Your task to perform on an android device: open app "Google Play Music" Image 0: 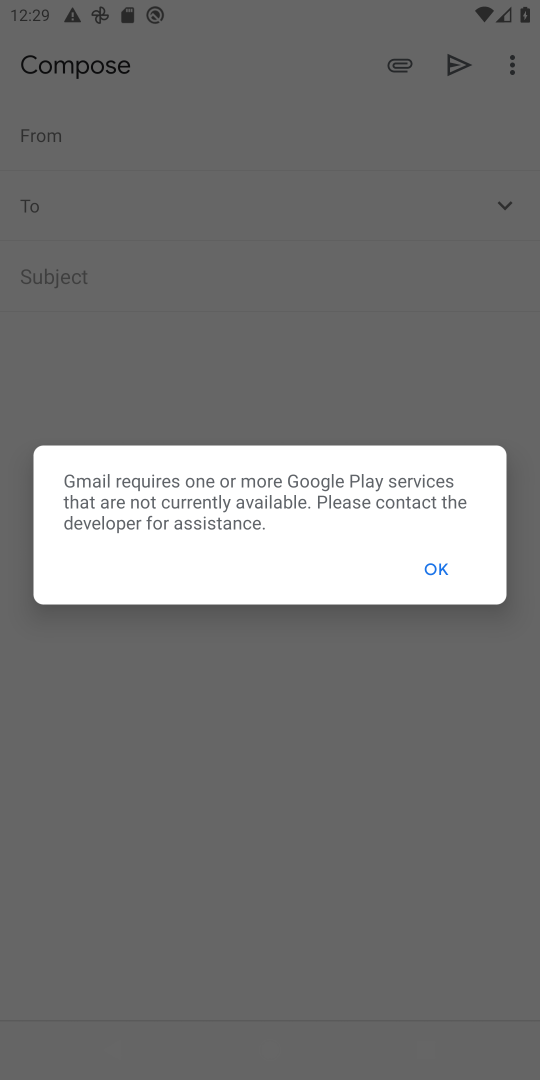
Step 0: press home button
Your task to perform on an android device: open app "Google Play Music" Image 1: 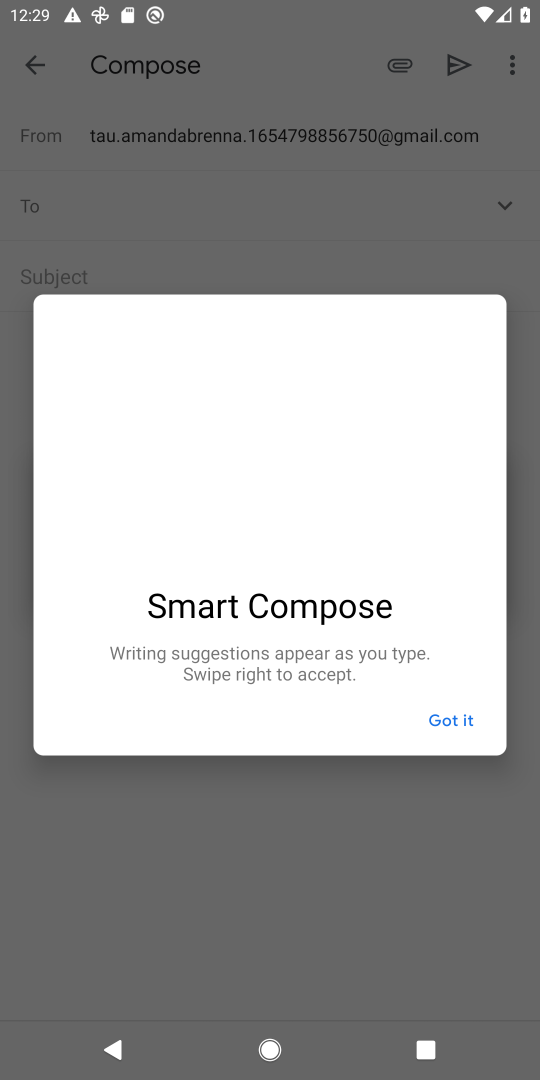
Step 1: press home button
Your task to perform on an android device: open app "Google Play Music" Image 2: 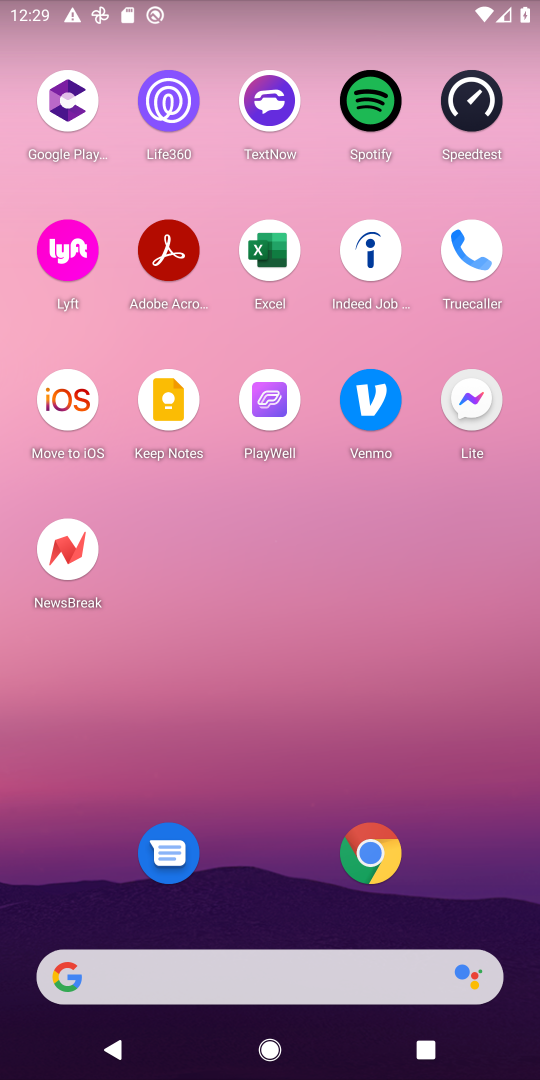
Step 2: click (443, 713)
Your task to perform on an android device: open app "Google Play Music" Image 3: 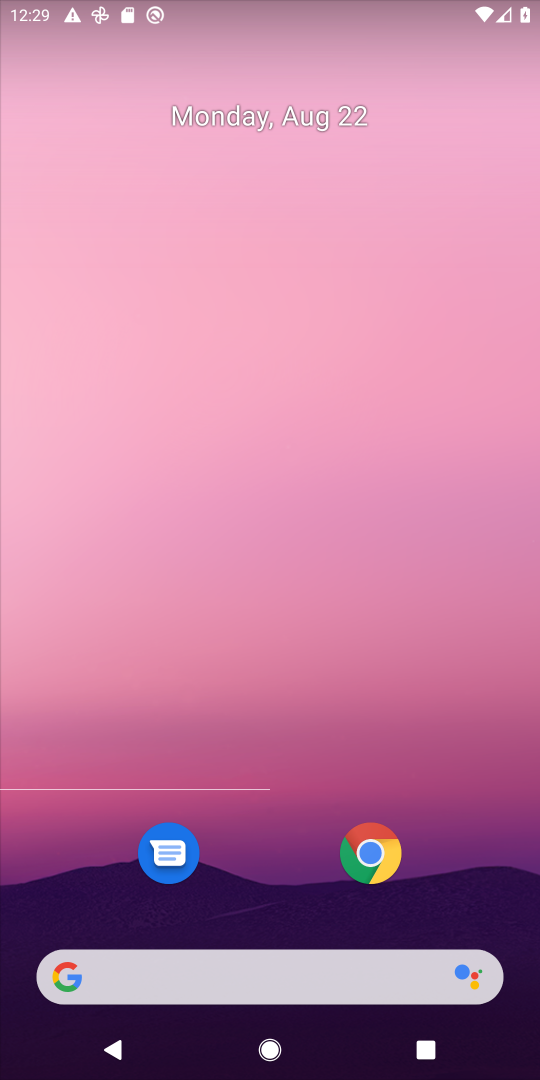
Step 3: drag from (245, 999) to (304, 210)
Your task to perform on an android device: open app "Google Play Music" Image 4: 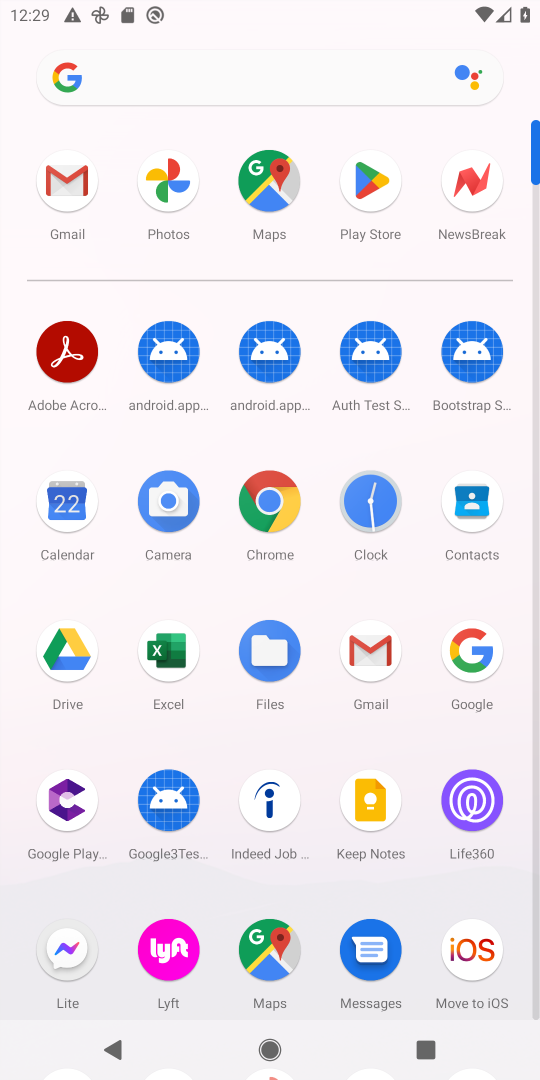
Step 4: click (382, 172)
Your task to perform on an android device: open app "Google Play Music" Image 5: 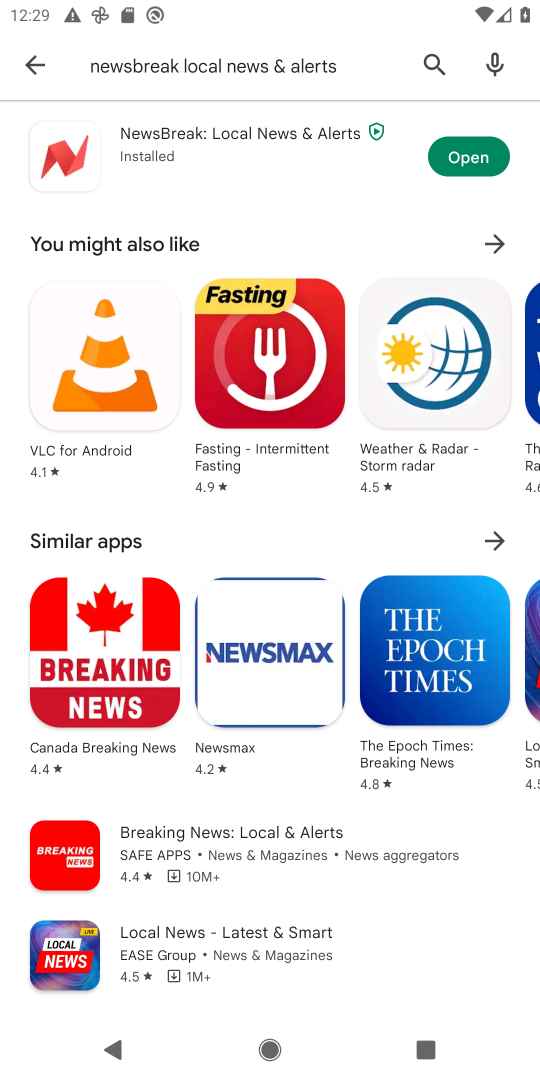
Step 5: click (38, 63)
Your task to perform on an android device: open app "Google Play Music" Image 6: 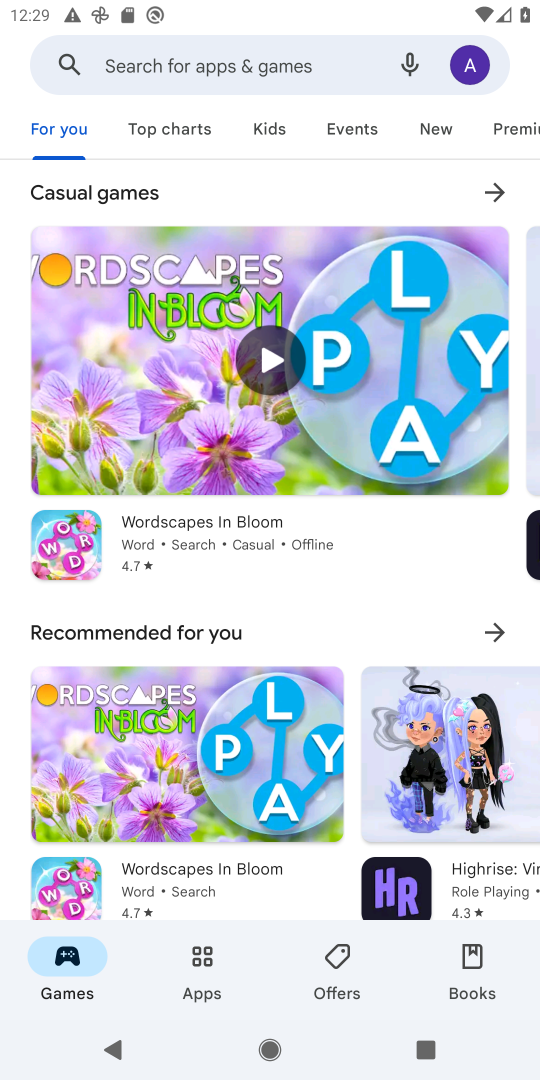
Step 6: click (251, 60)
Your task to perform on an android device: open app "Google Play Music" Image 7: 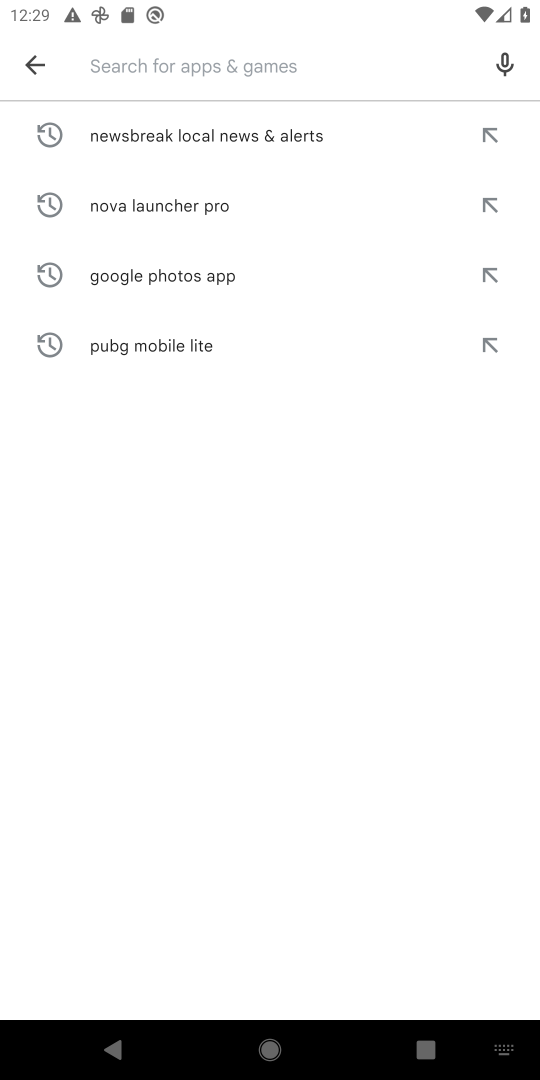
Step 7: type "Google Play Music "
Your task to perform on an android device: open app "Google Play Music" Image 8: 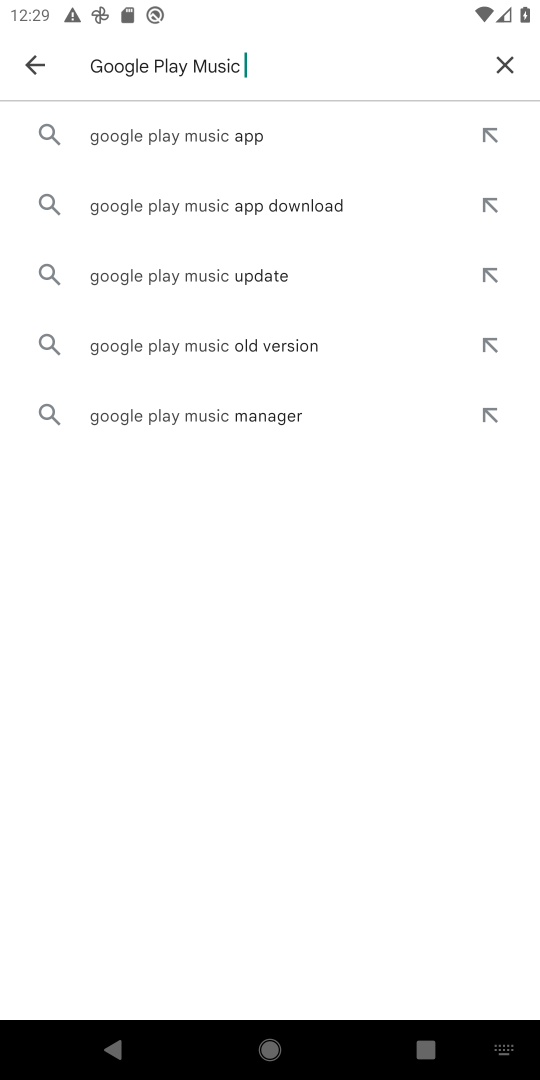
Step 8: click (138, 143)
Your task to perform on an android device: open app "Google Play Music" Image 9: 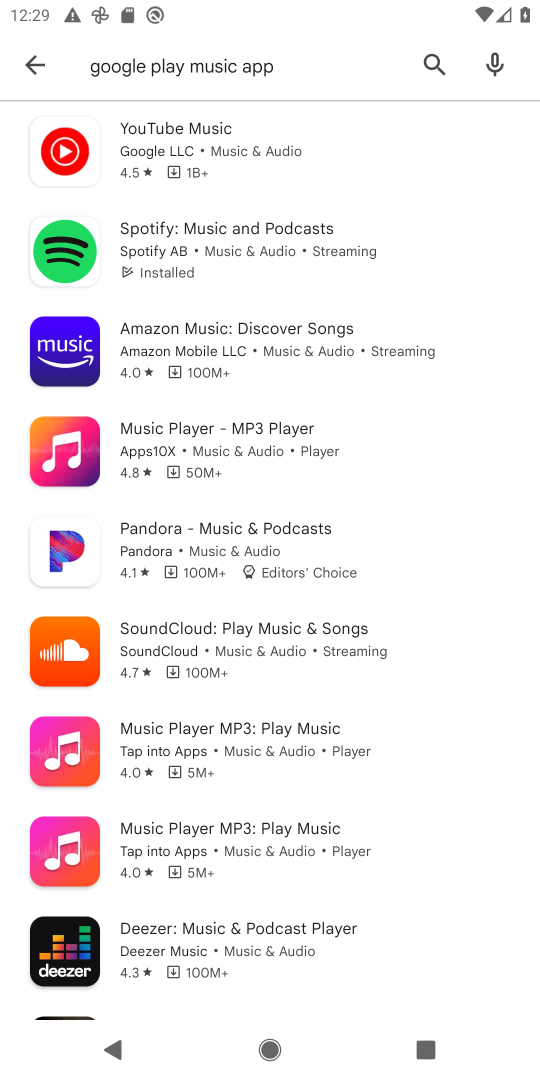
Step 9: click (203, 125)
Your task to perform on an android device: open app "Google Play Music" Image 10: 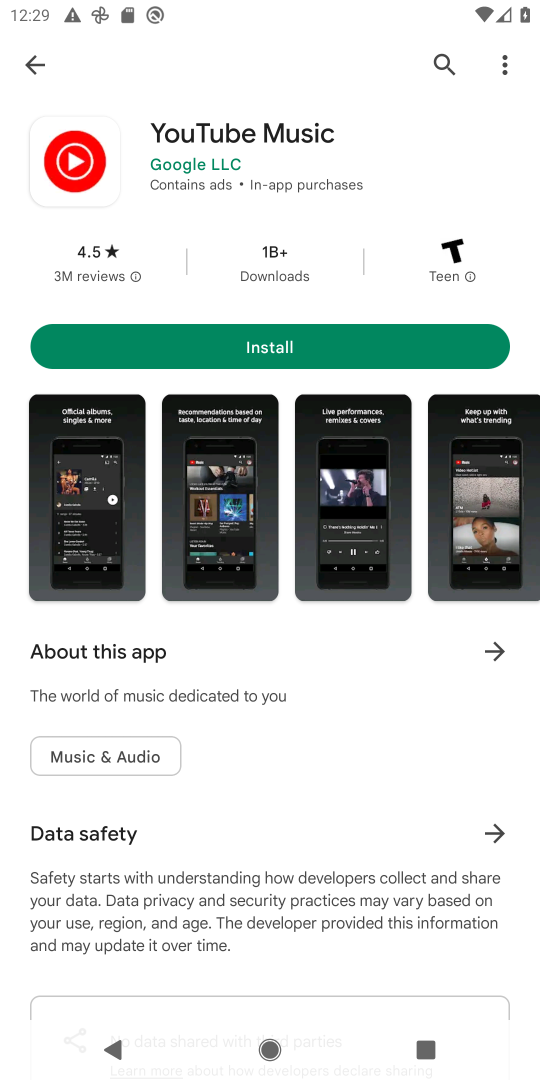
Step 10: click (282, 333)
Your task to perform on an android device: open app "Google Play Music" Image 11: 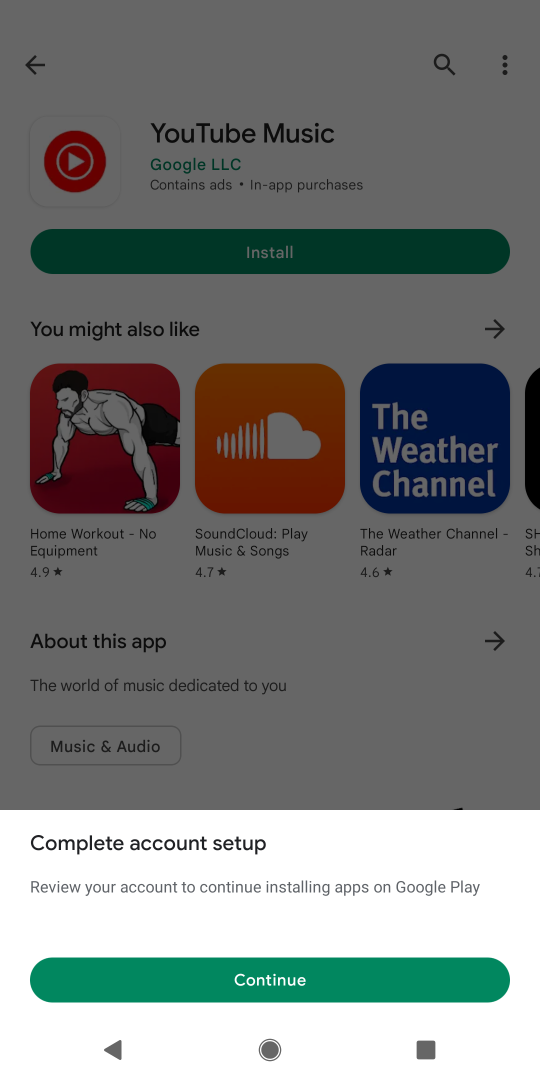
Step 11: task complete